Your task to perform on an android device: Turn on the flashlight Image 0: 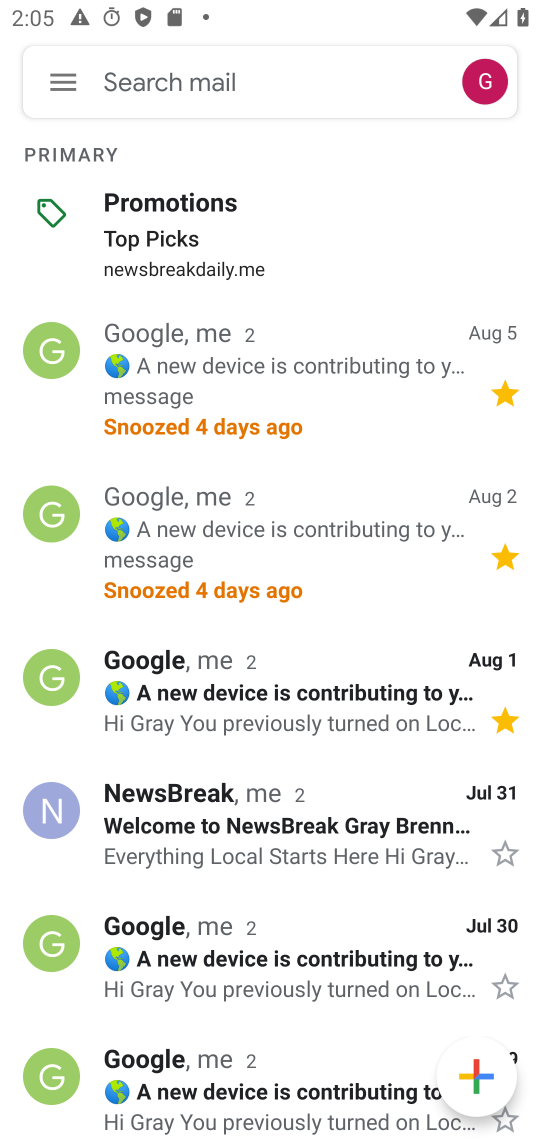
Step 0: press home button
Your task to perform on an android device: Turn on the flashlight Image 1: 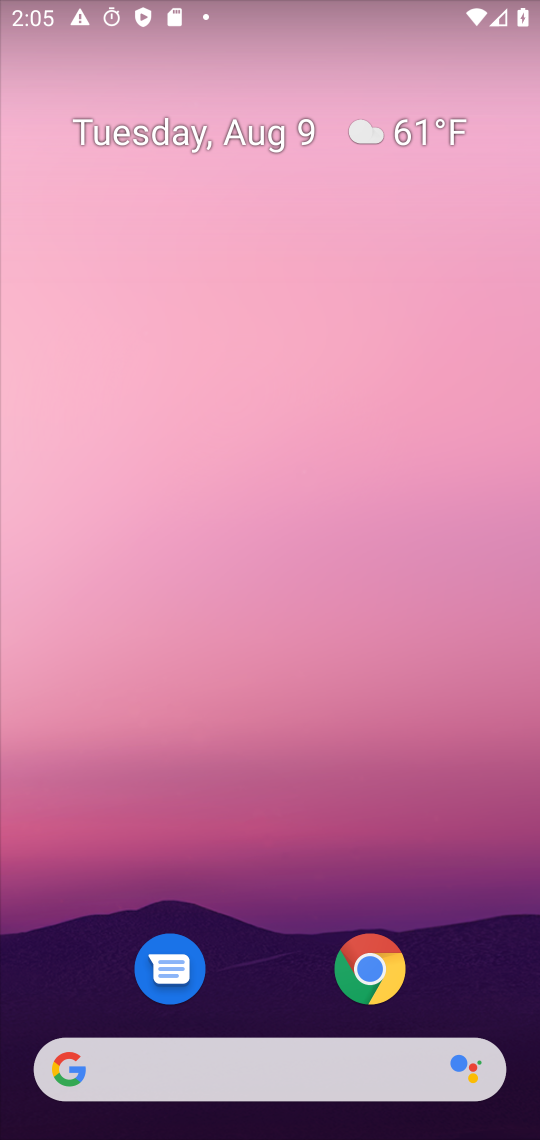
Step 1: drag from (318, 1038) to (244, 221)
Your task to perform on an android device: Turn on the flashlight Image 2: 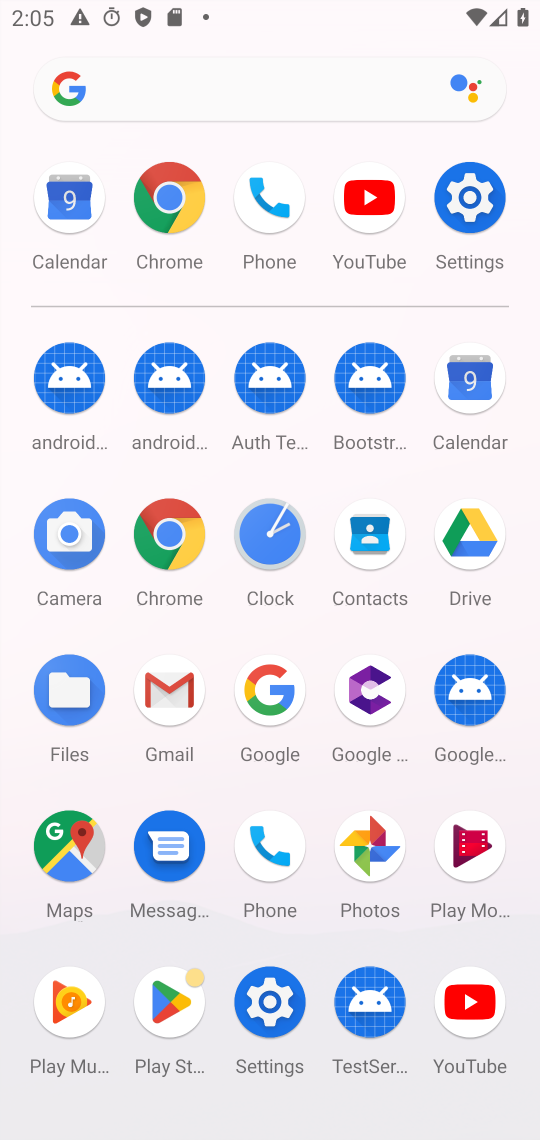
Step 2: click (265, 1025)
Your task to perform on an android device: Turn on the flashlight Image 3: 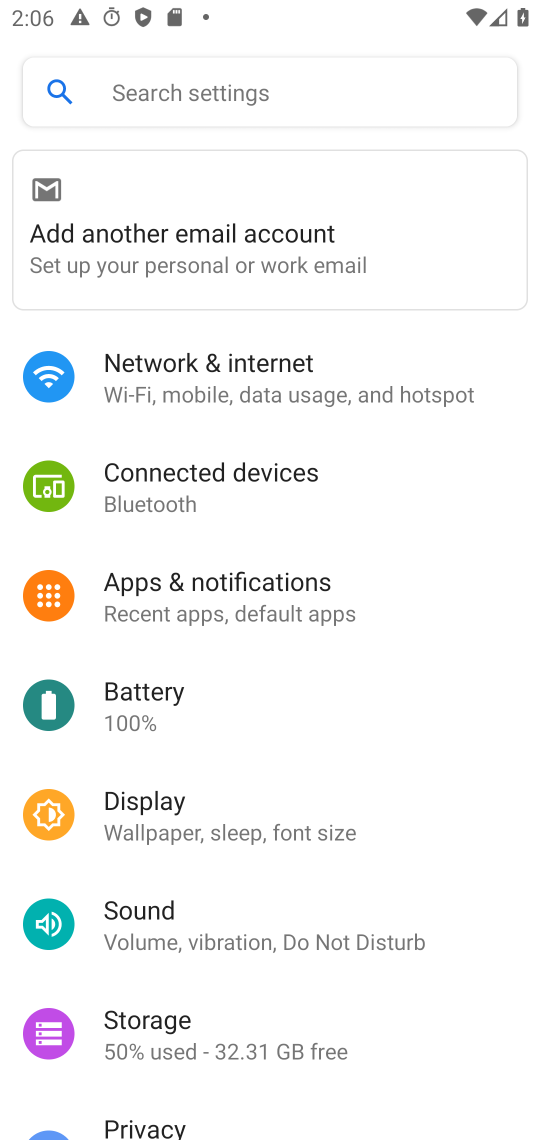
Step 3: click (183, 95)
Your task to perform on an android device: Turn on the flashlight Image 4: 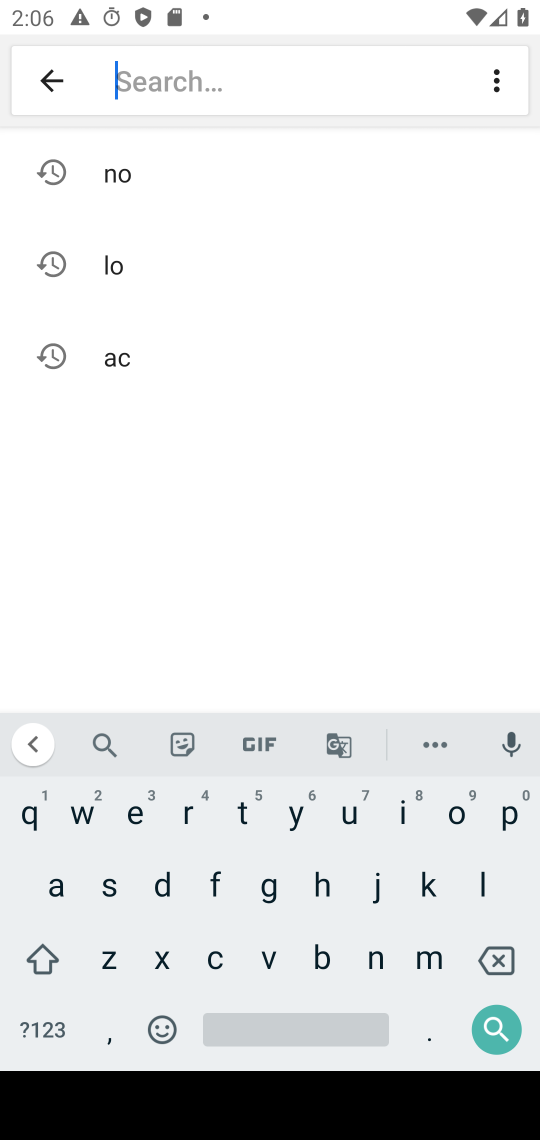
Step 4: click (212, 879)
Your task to perform on an android device: Turn on the flashlight Image 5: 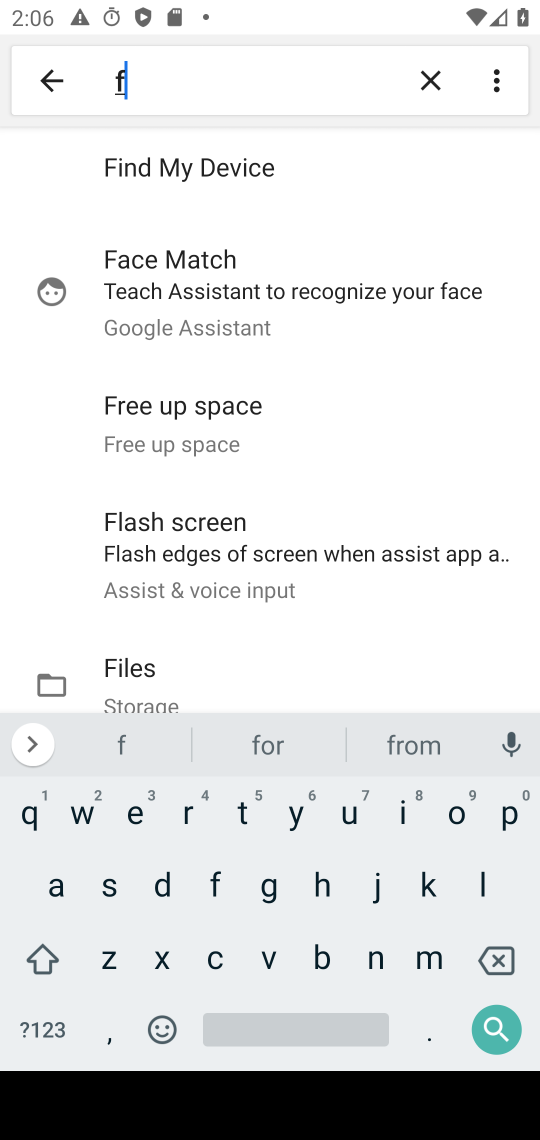
Step 5: click (477, 879)
Your task to perform on an android device: Turn on the flashlight Image 6: 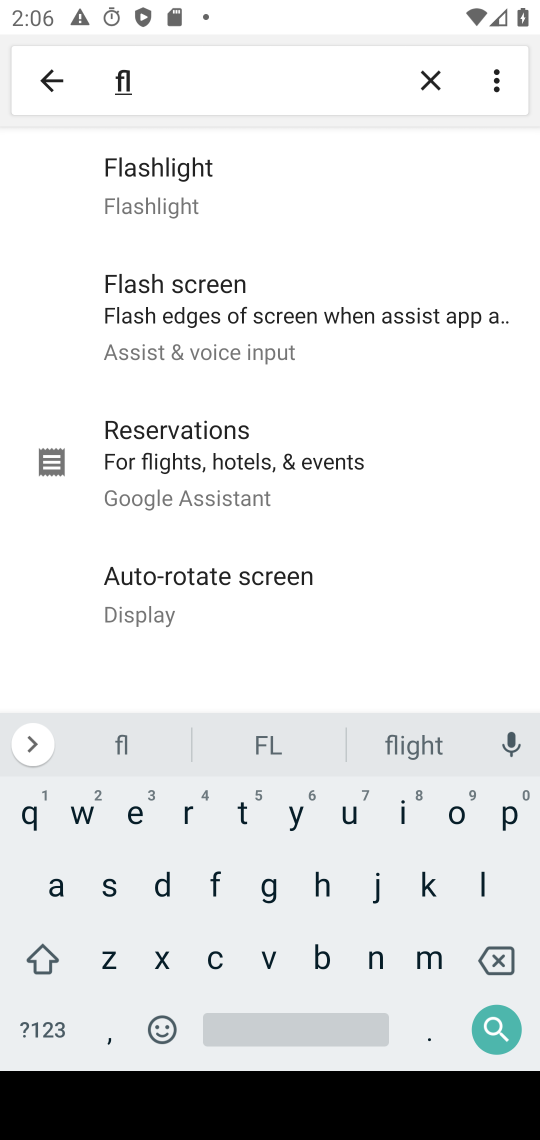
Step 6: click (259, 188)
Your task to perform on an android device: Turn on the flashlight Image 7: 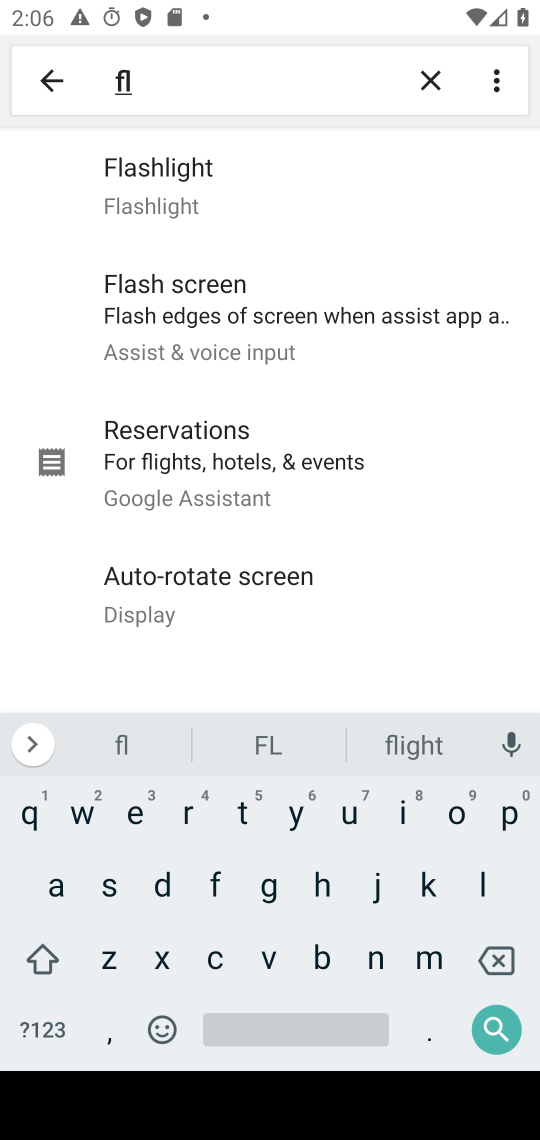
Step 7: click (259, 188)
Your task to perform on an android device: Turn on the flashlight Image 8: 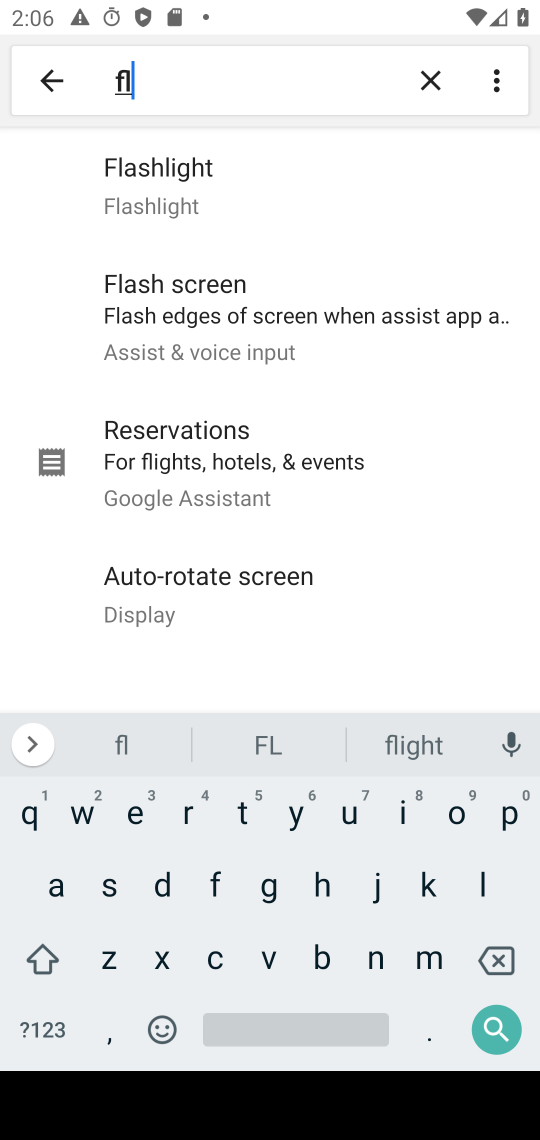
Step 8: click (259, 188)
Your task to perform on an android device: Turn on the flashlight Image 9: 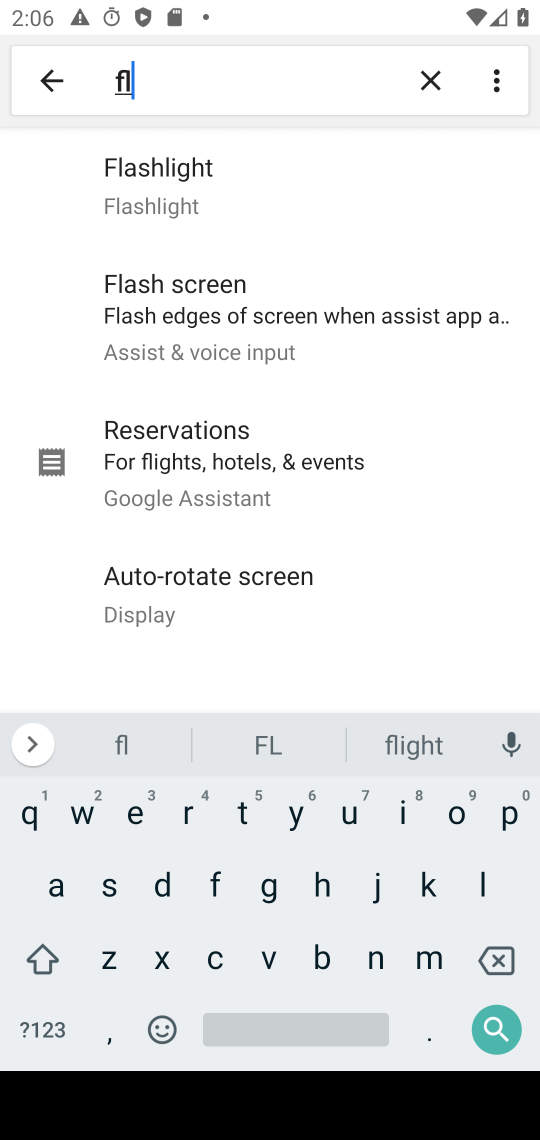
Step 9: task complete